Your task to perform on an android device: What's the weather? Image 0: 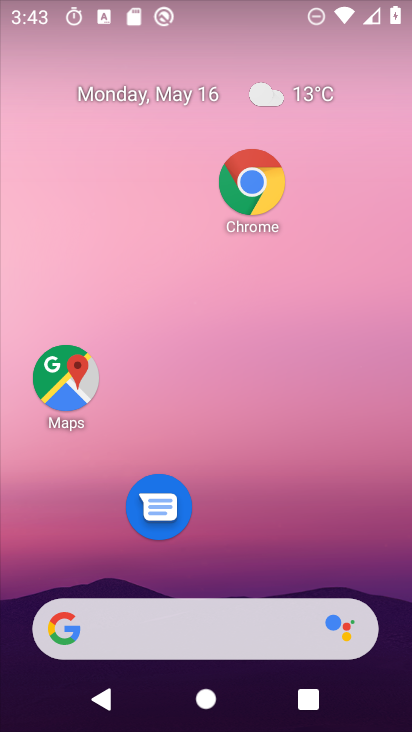
Step 0: drag from (229, 524) to (161, 172)
Your task to perform on an android device: What's the weather? Image 1: 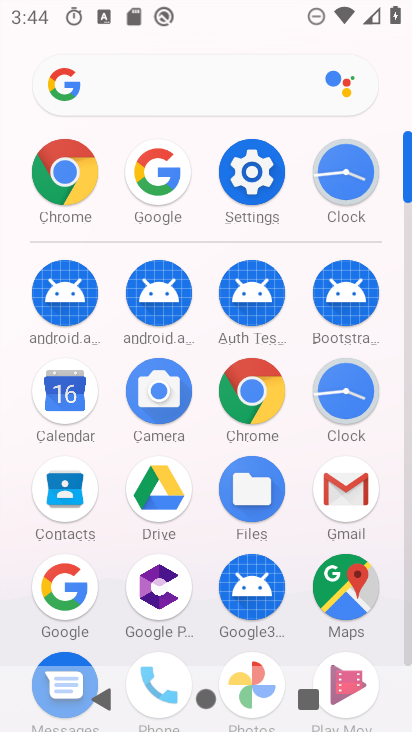
Step 1: click (78, 588)
Your task to perform on an android device: What's the weather? Image 2: 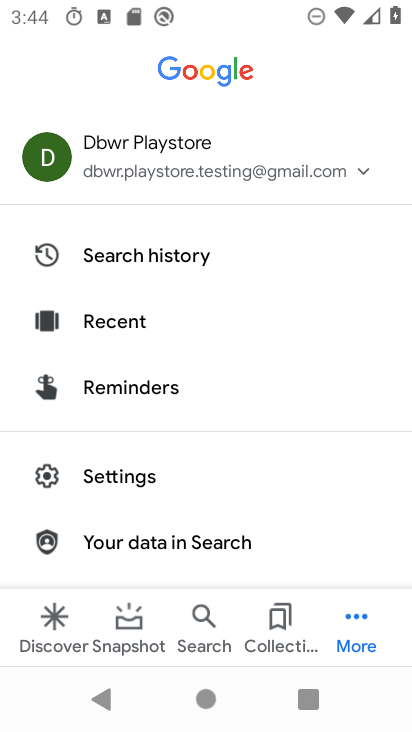
Step 2: click (58, 619)
Your task to perform on an android device: What's the weather? Image 3: 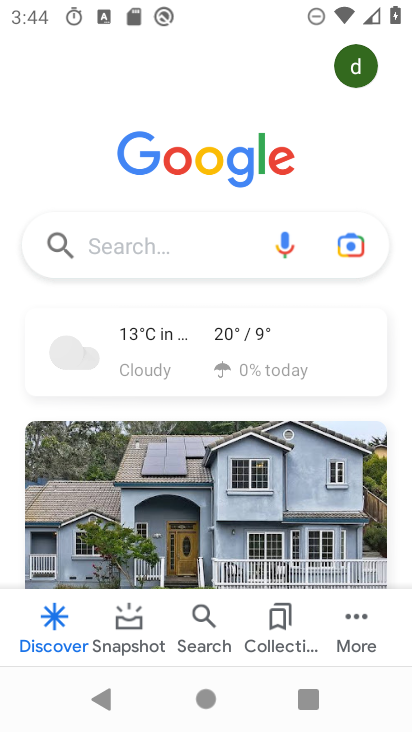
Step 3: click (222, 361)
Your task to perform on an android device: What's the weather? Image 4: 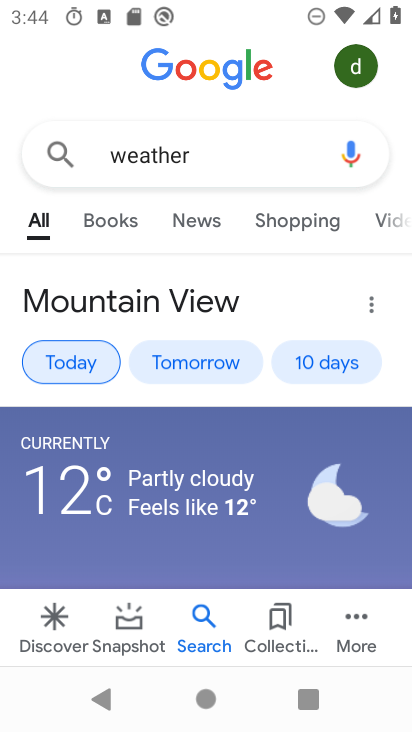
Step 4: task complete